Your task to perform on an android device: See recent photos Image 0: 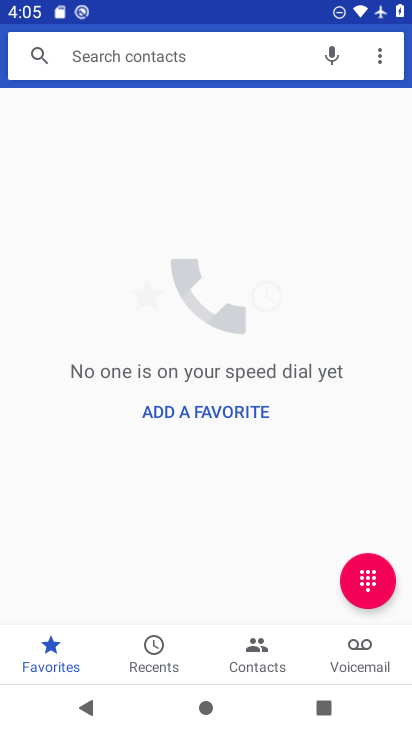
Step 0: press home button
Your task to perform on an android device: See recent photos Image 1: 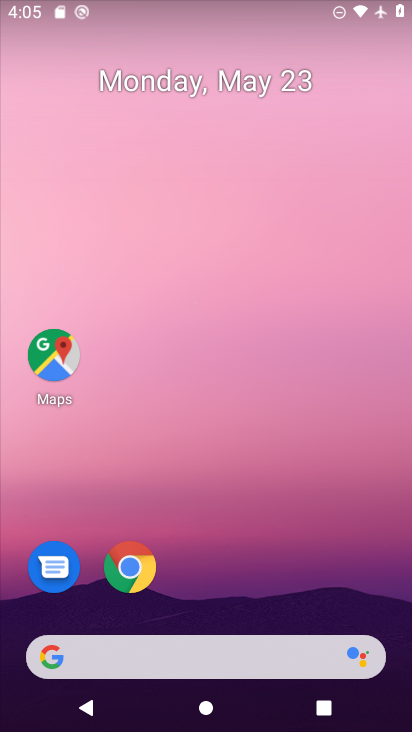
Step 1: drag from (400, 656) to (285, 153)
Your task to perform on an android device: See recent photos Image 2: 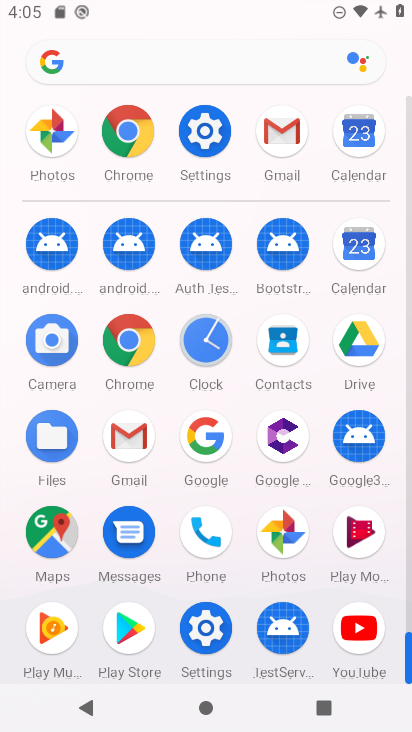
Step 2: click (280, 536)
Your task to perform on an android device: See recent photos Image 3: 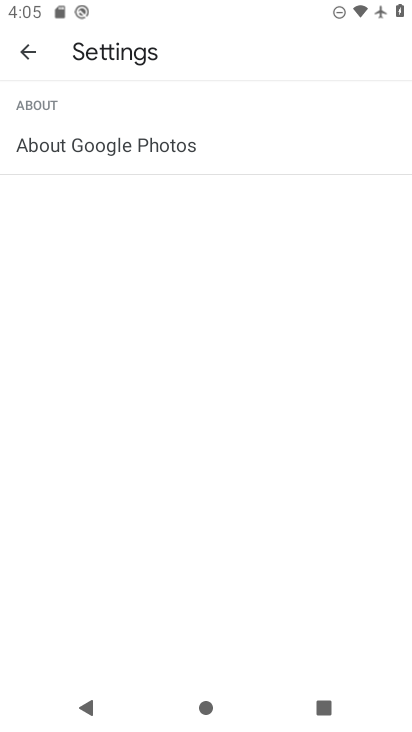
Step 3: task complete